Your task to perform on an android device: Search for a new eyeshadow Image 0: 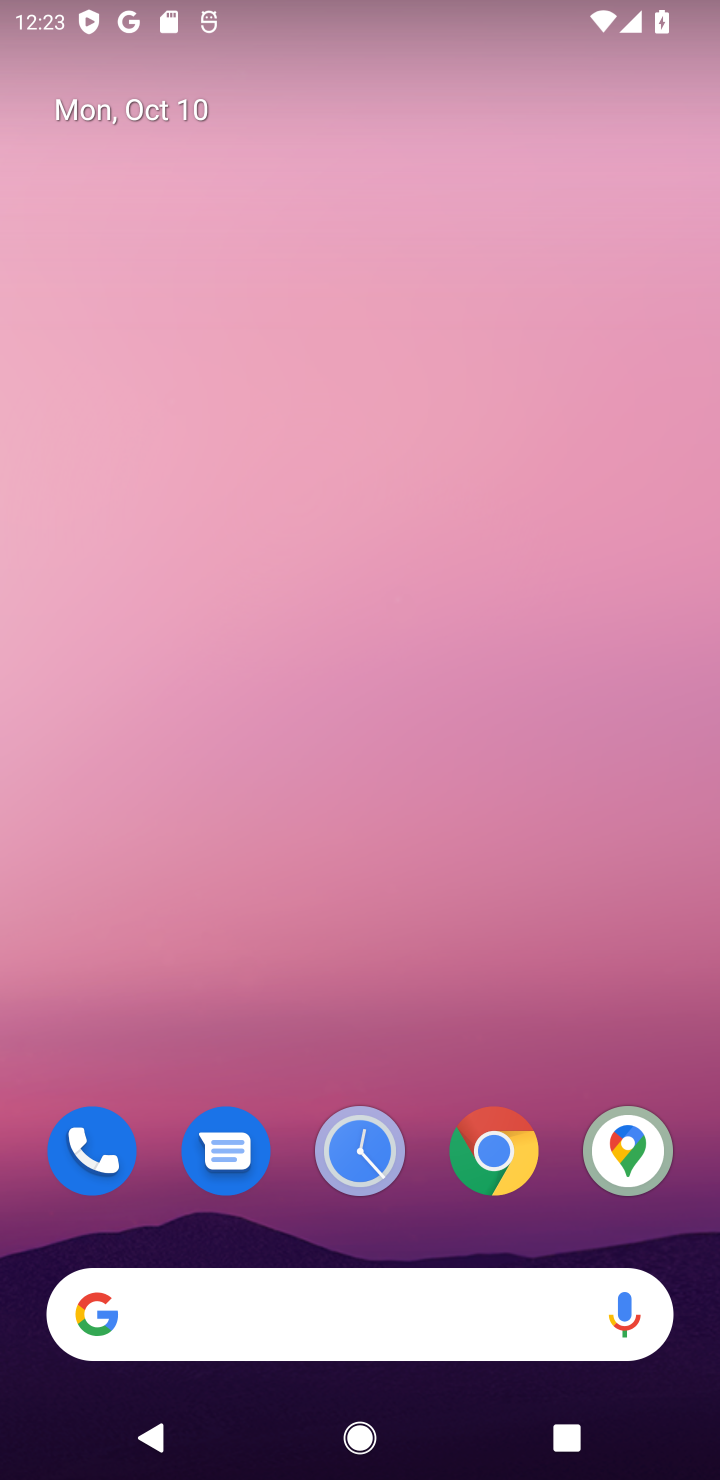
Step 0: click (332, 1286)
Your task to perform on an android device: Search for a new eyeshadow Image 1: 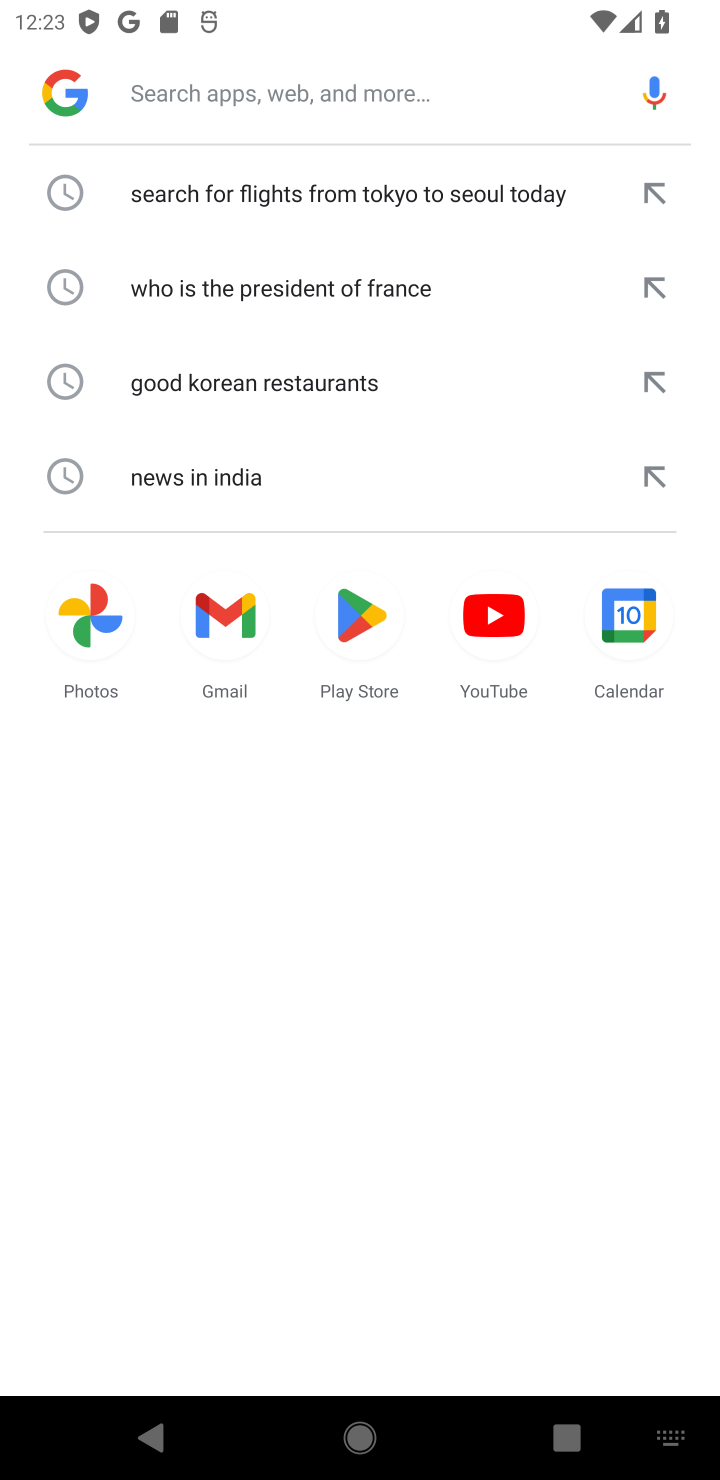
Step 1: type "Search for a new eyeshadow"
Your task to perform on an android device: Search for a new eyeshadow Image 2: 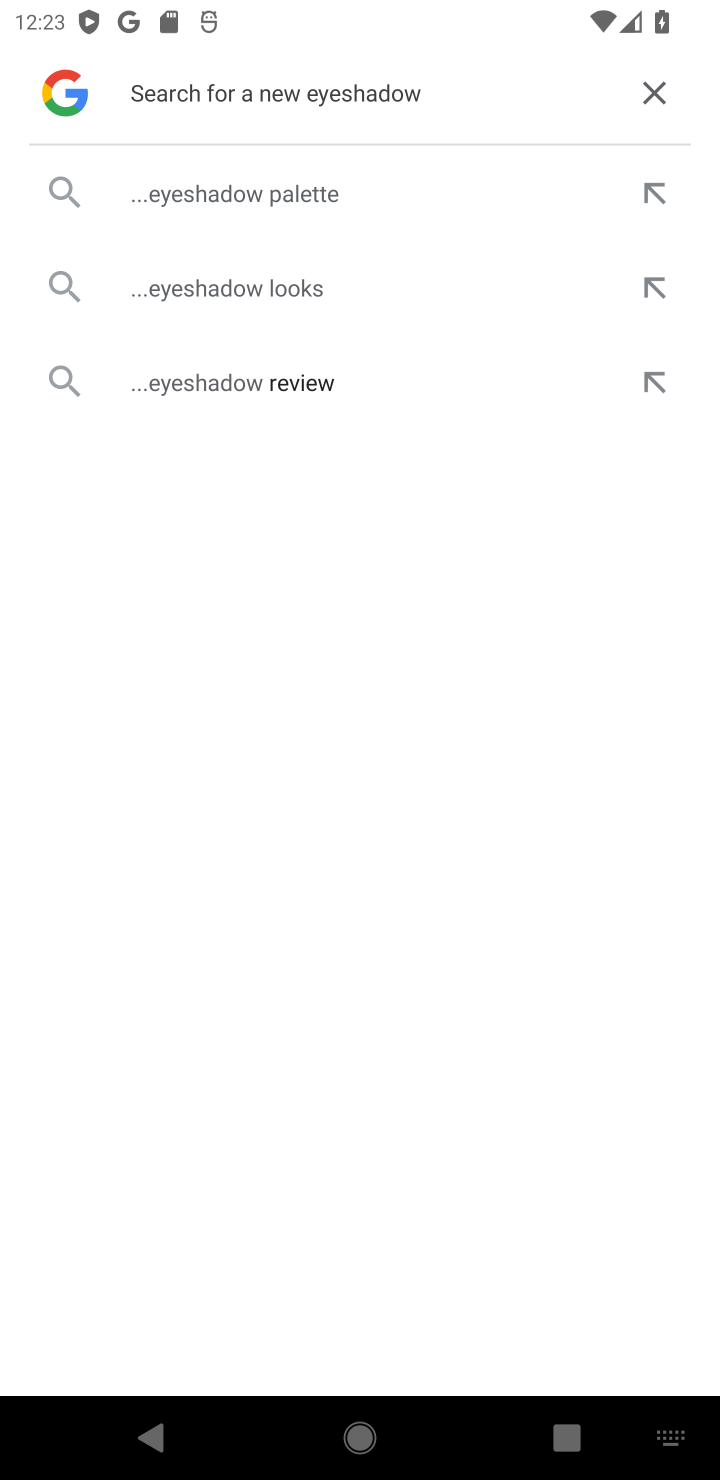
Step 2: click (234, 292)
Your task to perform on an android device: Search for a new eyeshadow Image 3: 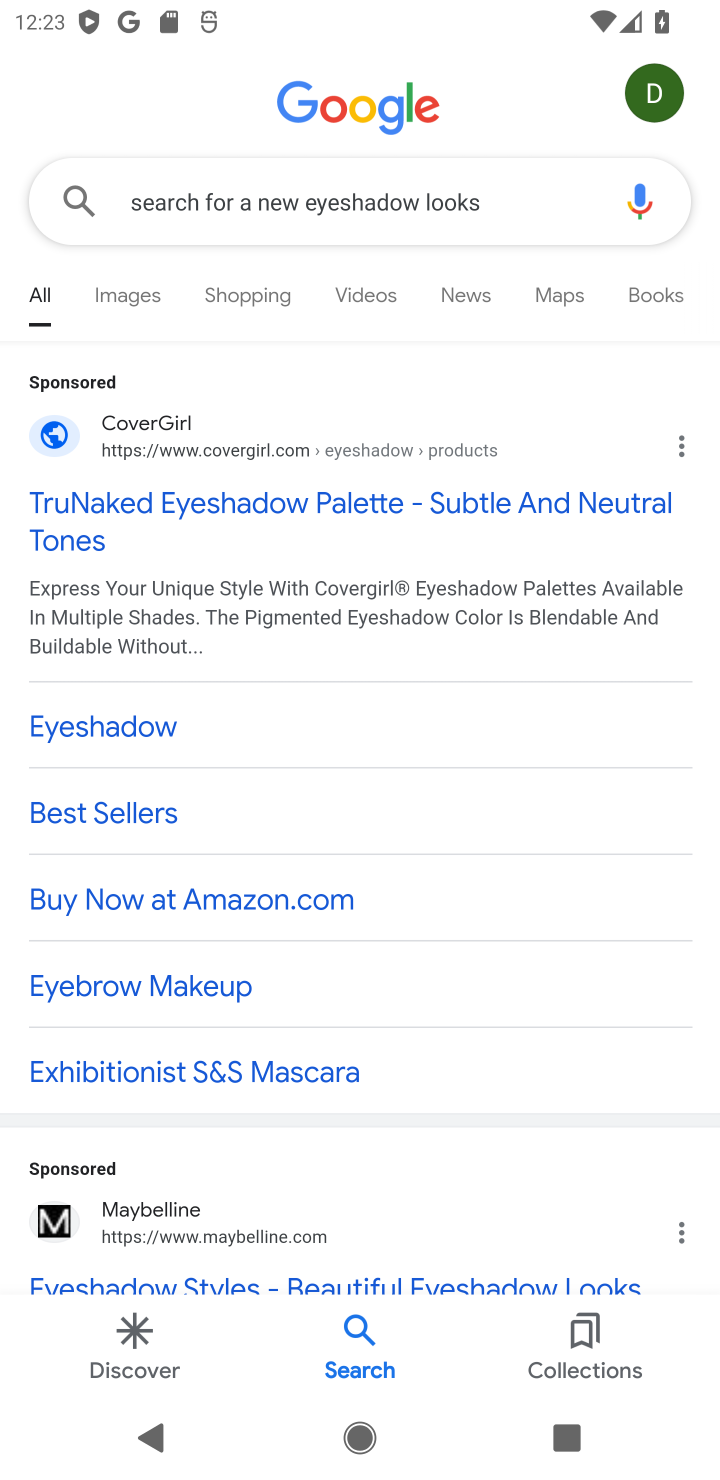
Step 3: click (258, 502)
Your task to perform on an android device: Search for a new eyeshadow Image 4: 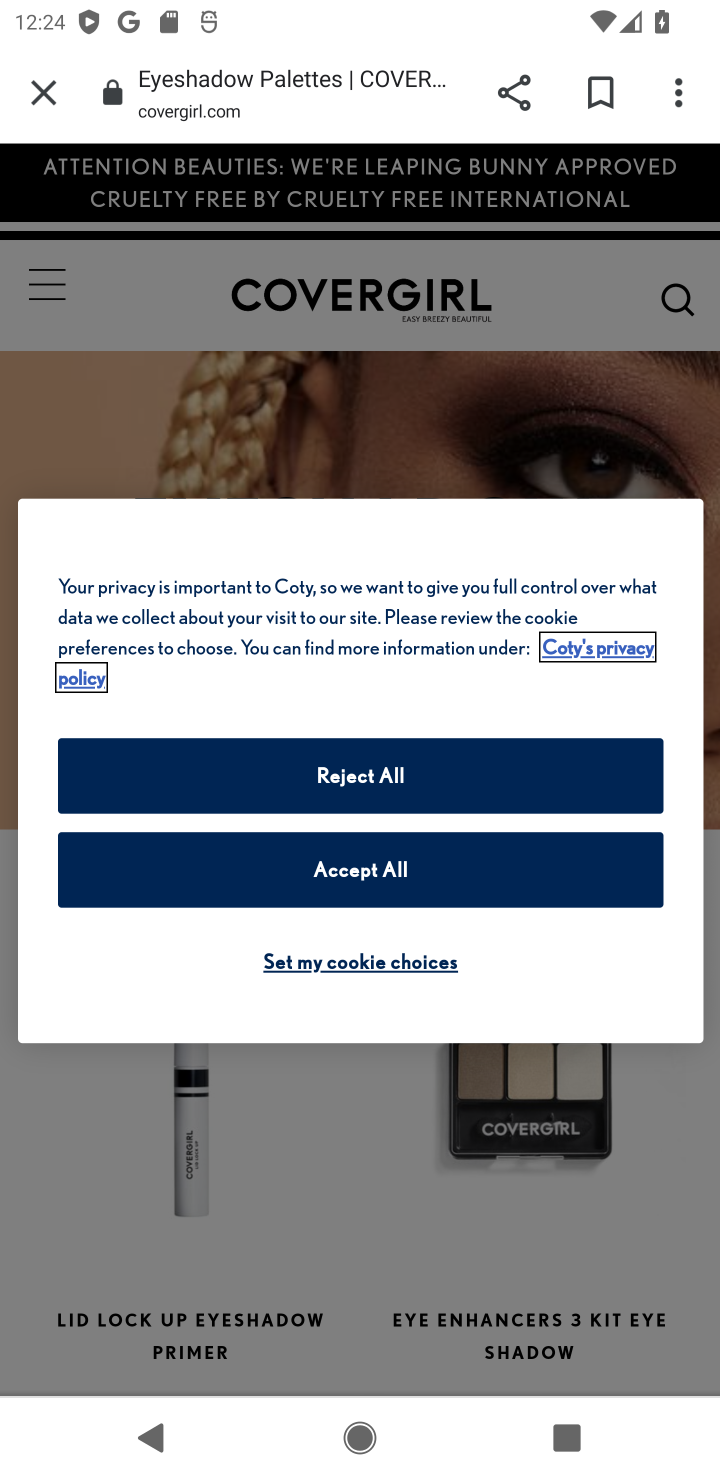
Step 4: click (396, 860)
Your task to perform on an android device: Search for a new eyeshadow Image 5: 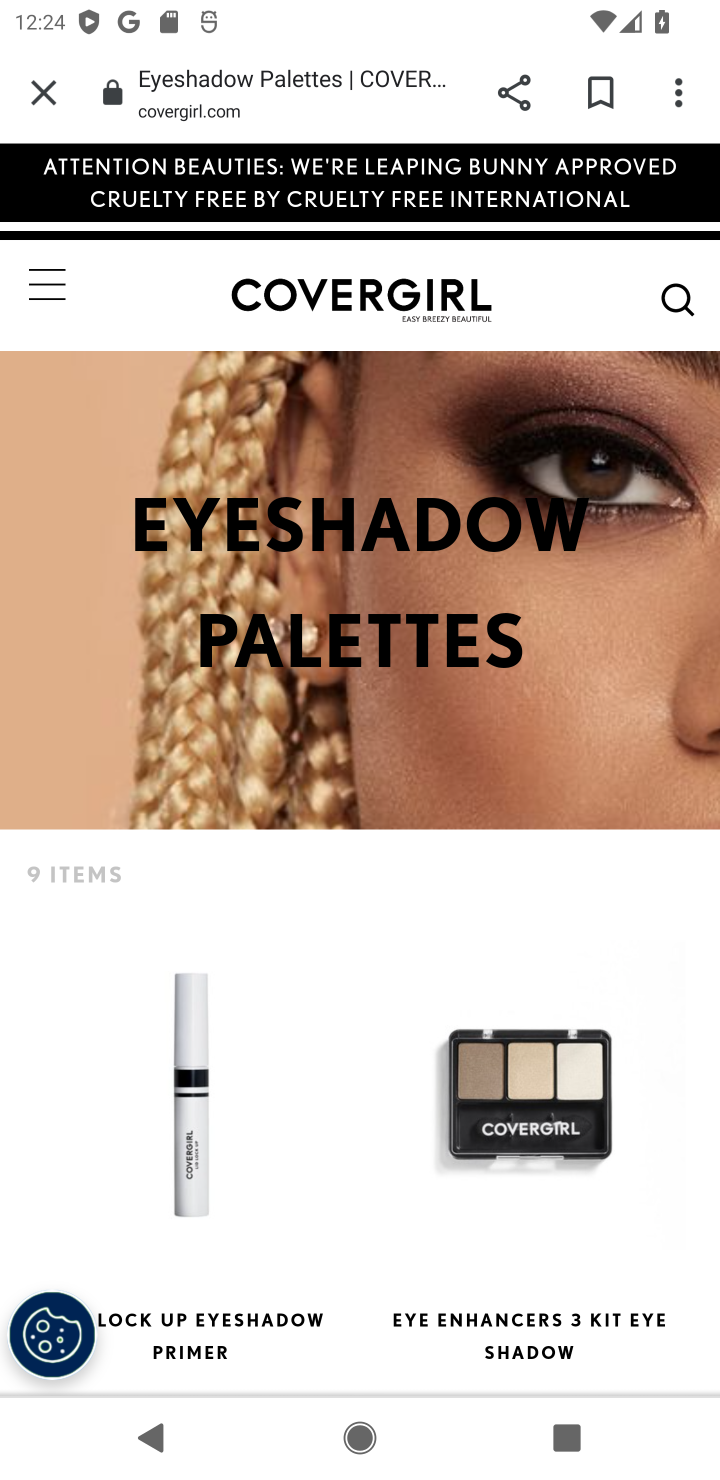
Step 5: task complete